Your task to perform on an android device: turn off wifi Image 0: 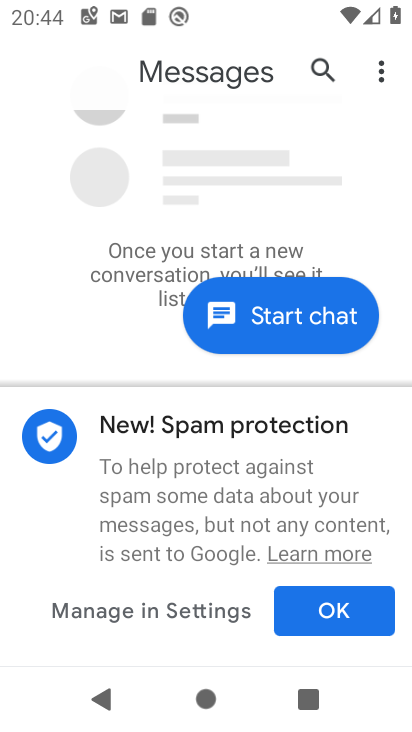
Step 0: press back button
Your task to perform on an android device: turn off wifi Image 1: 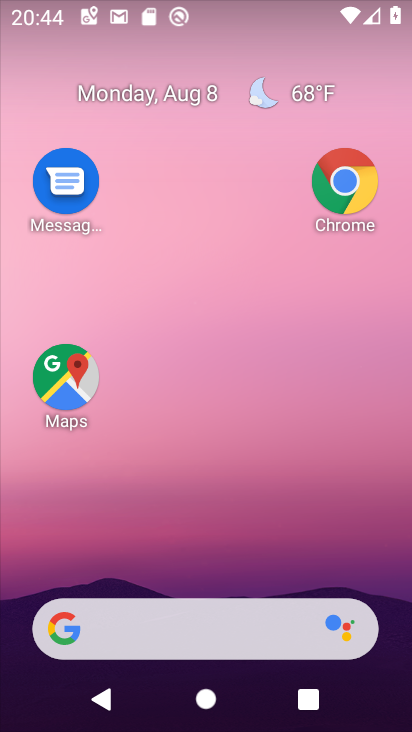
Step 1: drag from (230, 545) to (409, 311)
Your task to perform on an android device: turn off wifi Image 2: 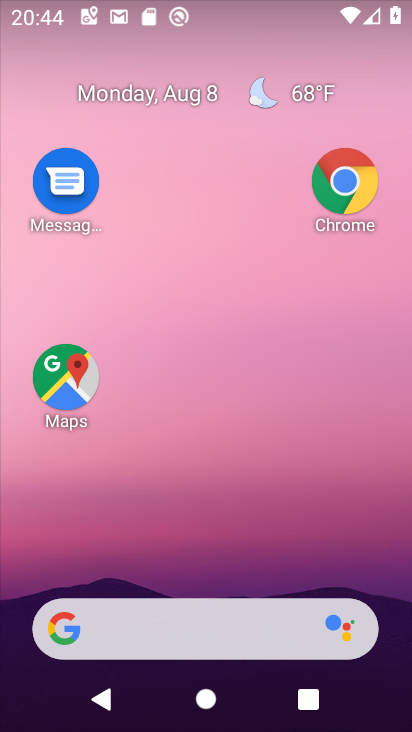
Step 2: drag from (289, 584) to (239, 37)
Your task to perform on an android device: turn off wifi Image 3: 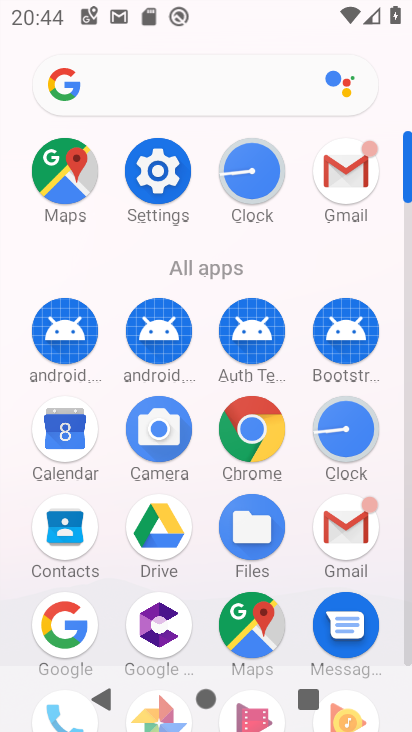
Step 3: click (176, 150)
Your task to perform on an android device: turn off wifi Image 4: 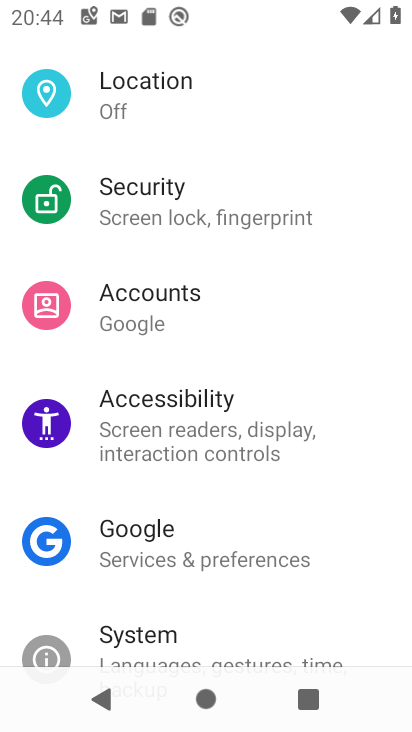
Step 4: drag from (176, 150) to (249, 717)
Your task to perform on an android device: turn off wifi Image 5: 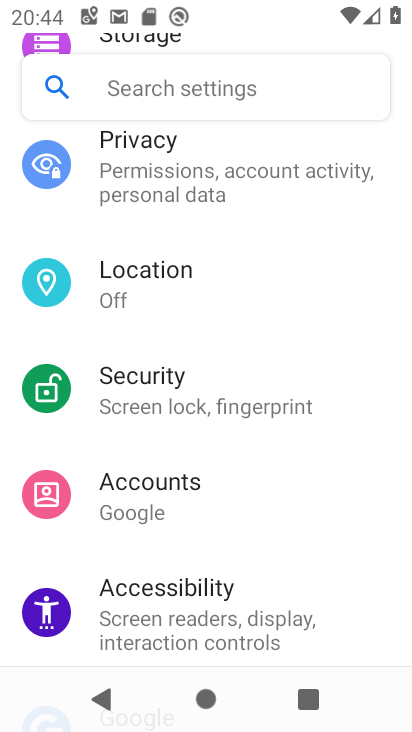
Step 5: drag from (290, 153) to (262, 561)
Your task to perform on an android device: turn off wifi Image 6: 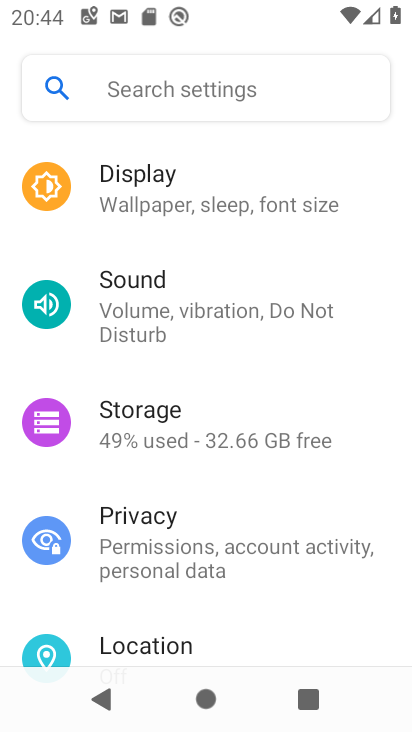
Step 6: drag from (147, 174) to (92, 526)
Your task to perform on an android device: turn off wifi Image 7: 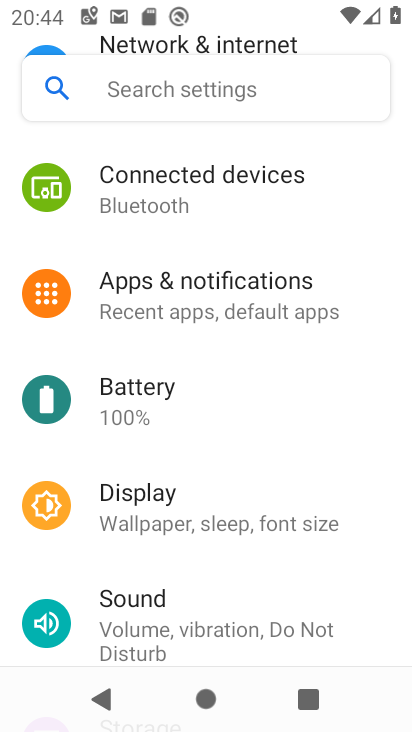
Step 7: drag from (181, 237) to (181, 483)
Your task to perform on an android device: turn off wifi Image 8: 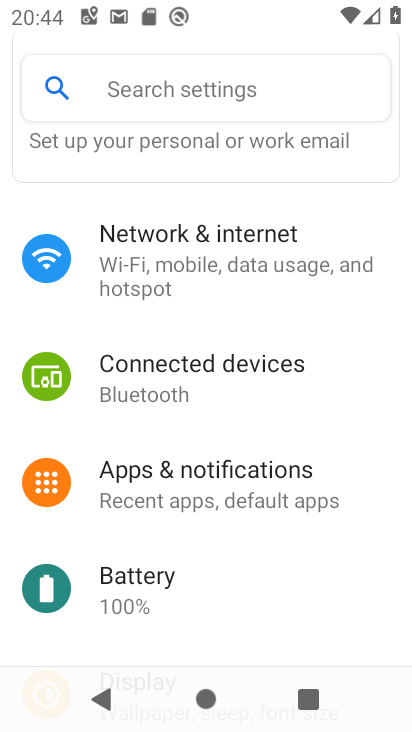
Step 8: click (183, 290)
Your task to perform on an android device: turn off wifi Image 9: 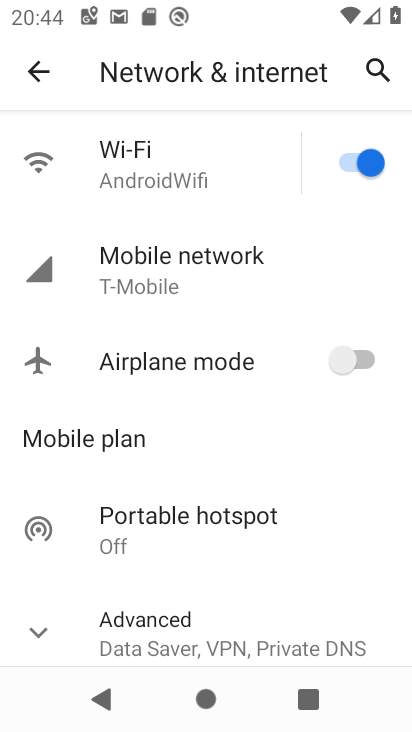
Step 9: click (340, 152)
Your task to perform on an android device: turn off wifi Image 10: 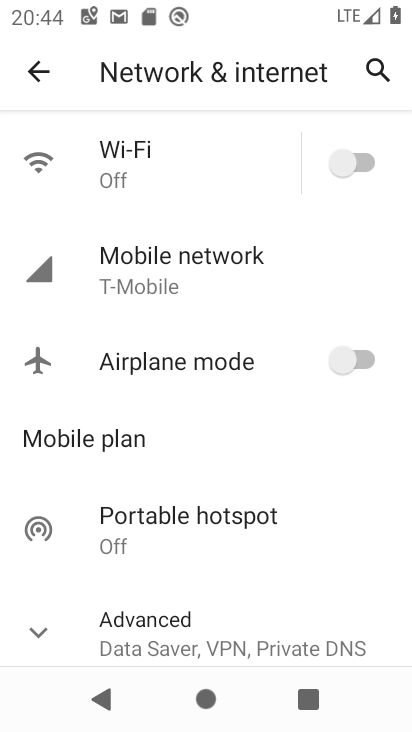
Step 10: task complete